Your task to perform on an android device: open a new tab in the chrome app Image 0: 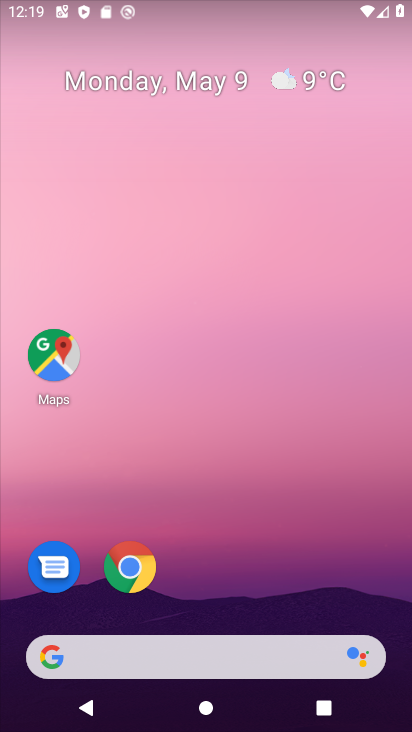
Step 0: drag from (295, 671) to (217, 147)
Your task to perform on an android device: open a new tab in the chrome app Image 1: 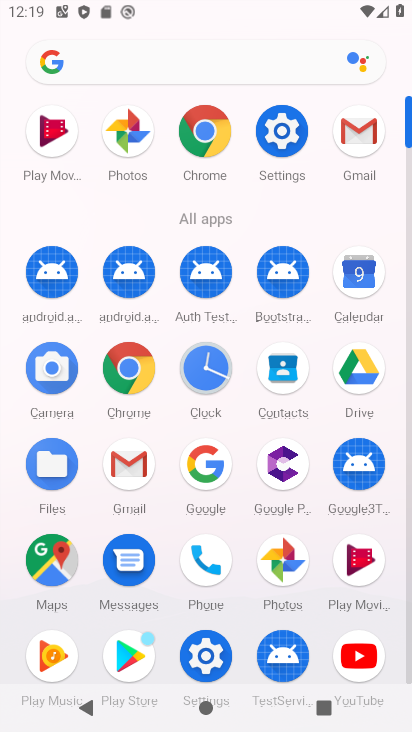
Step 1: click (126, 380)
Your task to perform on an android device: open a new tab in the chrome app Image 2: 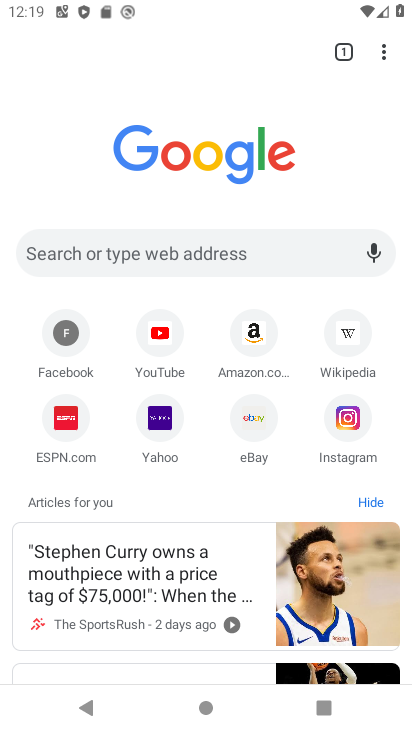
Step 2: click (380, 56)
Your task to perform on an android device: open a new tab in the chrome app Image 3: 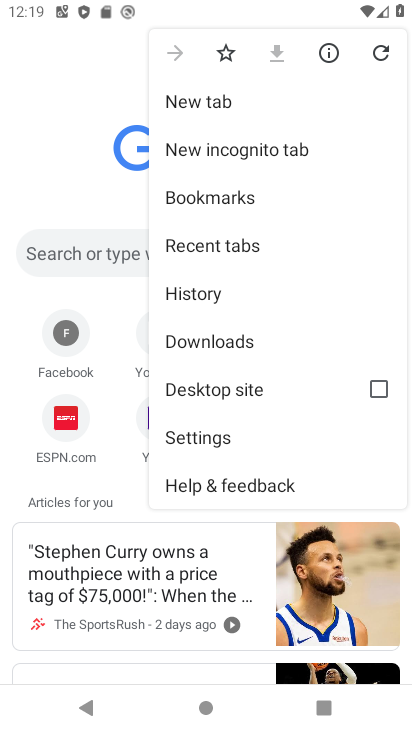
Step 3: click (243, 110)
Your task to perform on an android device: open a new tab in the chrome app Image 4: 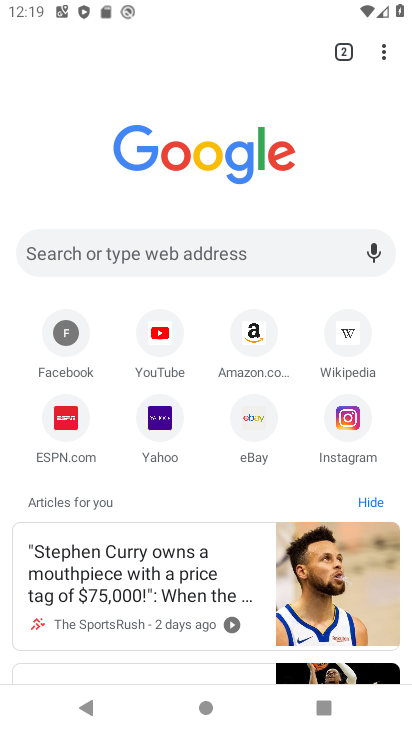
Step 4: task complete